Your task to perform on an android device: Open Amazon Image 0: 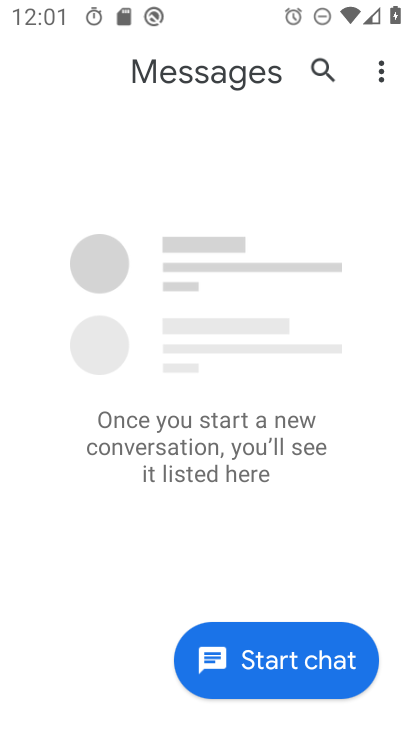
Step 0: press back button
Your task to perform on an android device: Open Amazon Image 1: 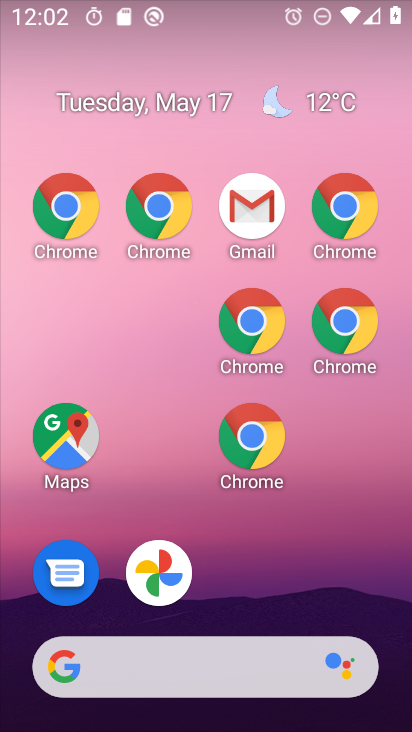
Step 1: drag from (346, 583) to (207, 176)
Your task to perform on an android device: Open Amazon Image 2: 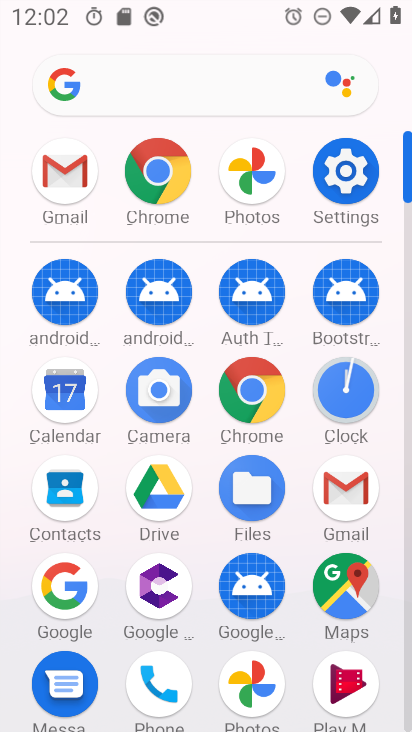
Step 2: click (157, 180)
Your task to perform on an android device: Open Amazon Image 3: 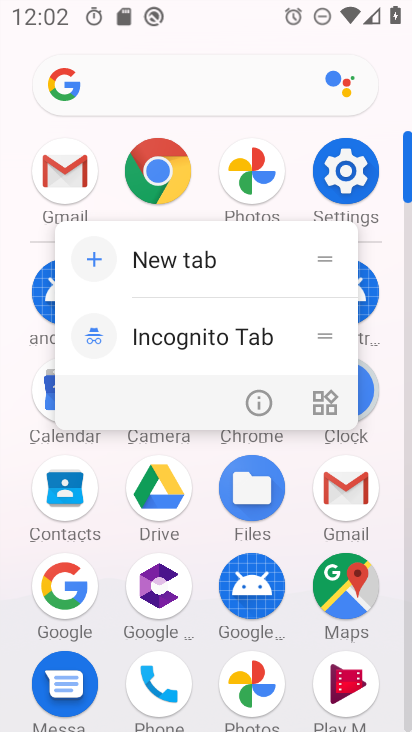
Step 3: click (164, 176)
Your task to perform on an android device: Open Amazon Image 4: 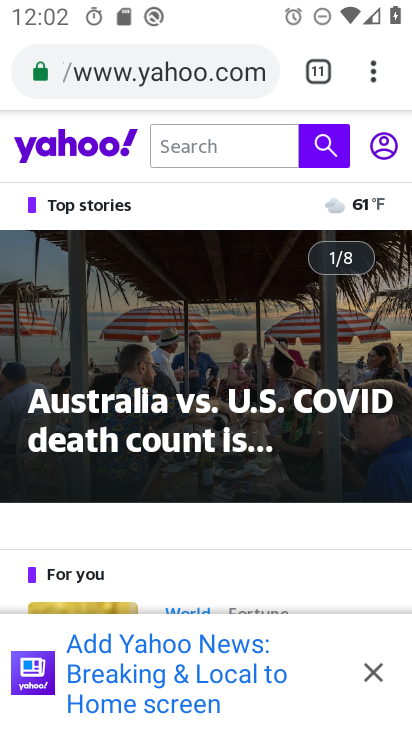
Step 4: drag from (365, 74) to (97, 150)
Your task to perform on an android device: Open Amazon Image 5: 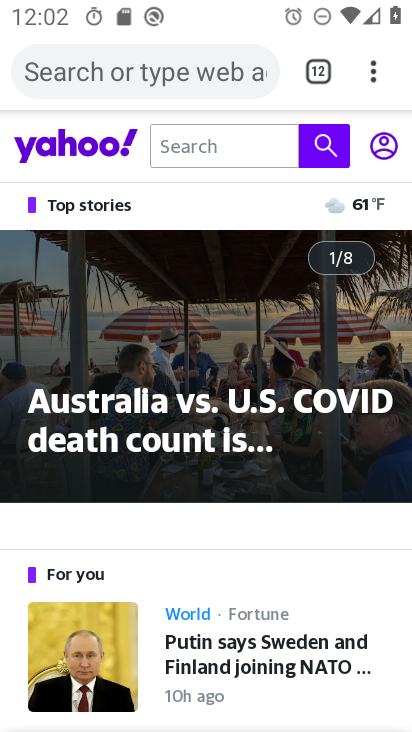
Step 5: click (97, 150)
Your task to perform on an android device: Open Amazon Image 6: 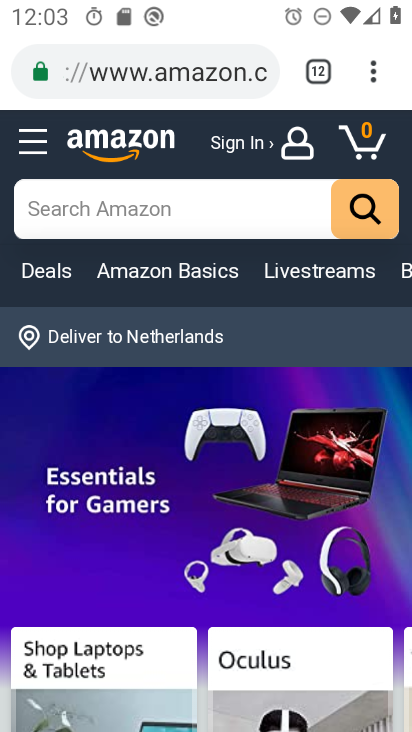
Step 6: task complete